Your task to perform on an android device: Go to wifi settings Image 0: 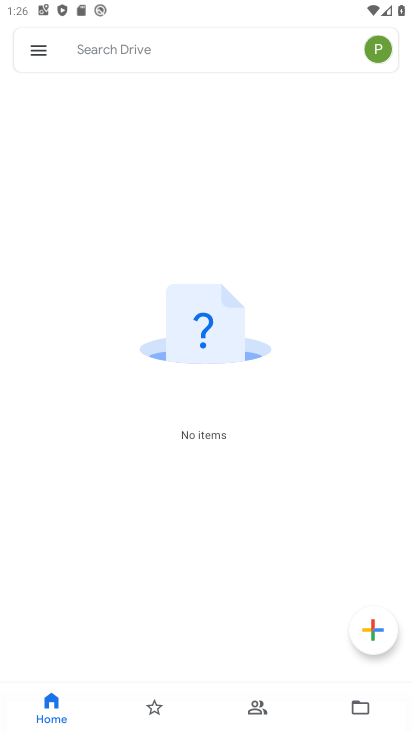
Step 0: press home button
Your task to perform on an android device: Go to wifi settings Image 1: 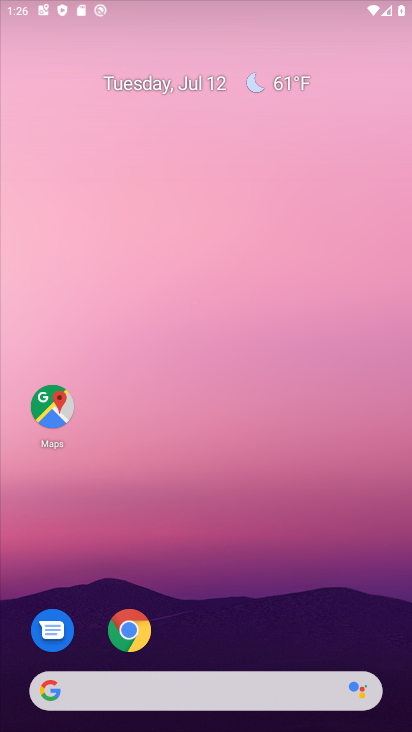
Step 1: drag from (245, 615) to (257, 183)
Your task to perform on an android device: Go to wifi settings Image 2: 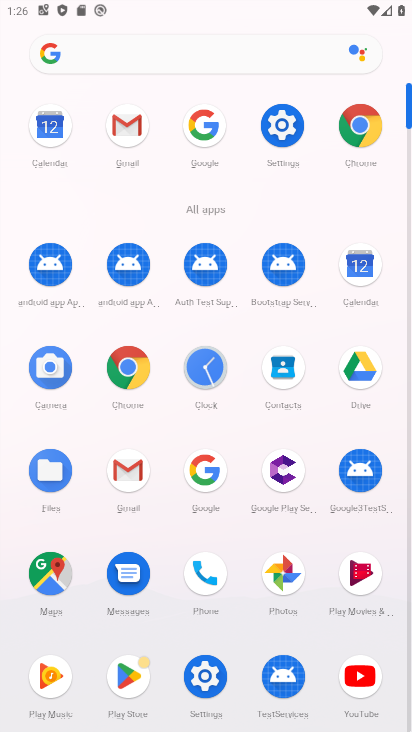
Step 2: click (276, 136)
Your task to perform on an android device: Go to wifi settings Image 3: 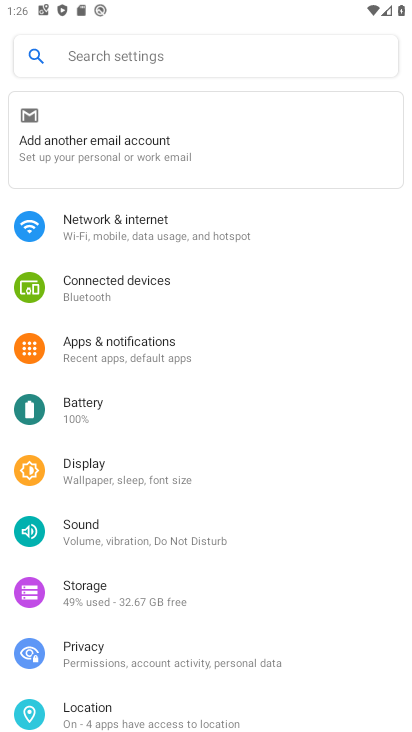
Step 3: click (119, 235)
Your task to perform on an android device: Go to wifi settings Image 4: 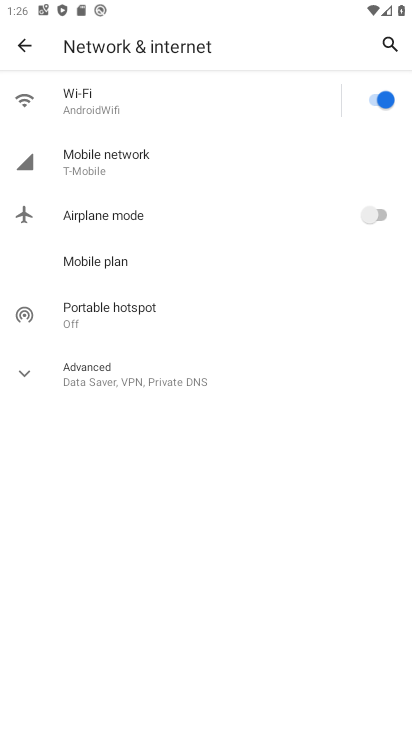
Step 4: click (120, 95)
Your task to perform on an android device: Go to wifi settings Image 5: 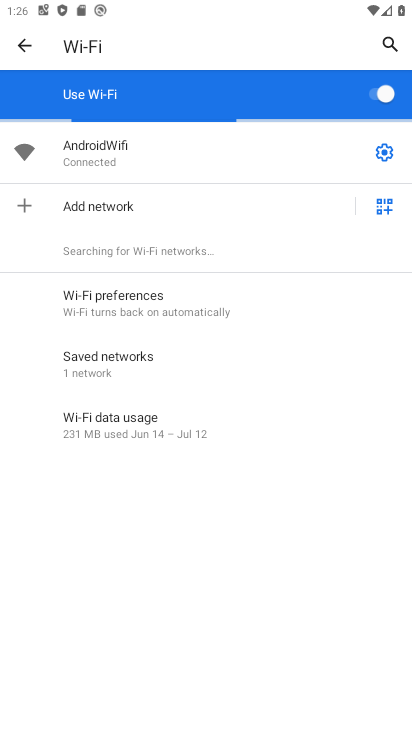
Step 5: task complete